Your task to perform on an android device: turn off location history Image 0: 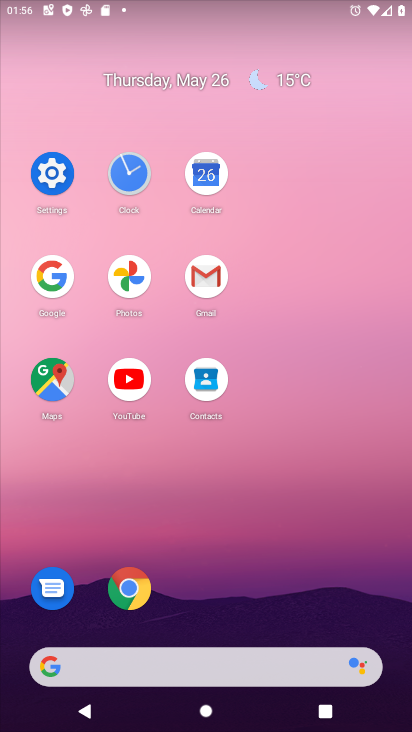
Step 0: click (82, 173)
Your task to perform on an android device: turn off location history Image 1: 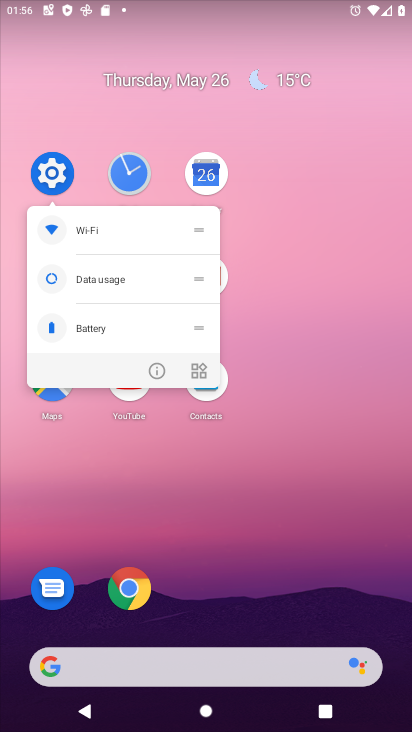
Step 1: click (67, 182)
Your task to perform on an android device: turn off location history Image 2: 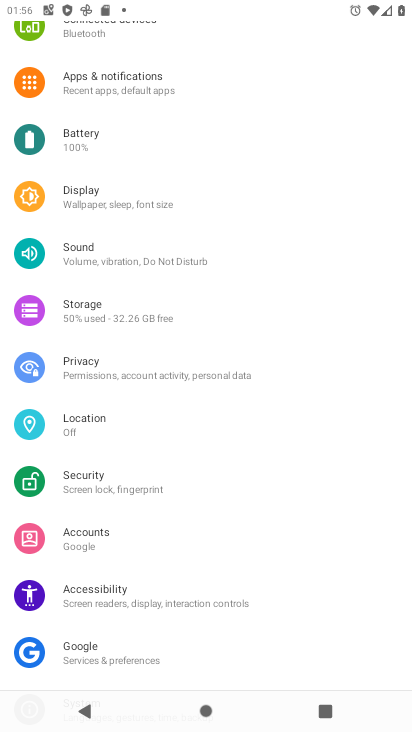
Step 2: click (165, 417)
Your task to perform on an android device: turn off location history Image 3: 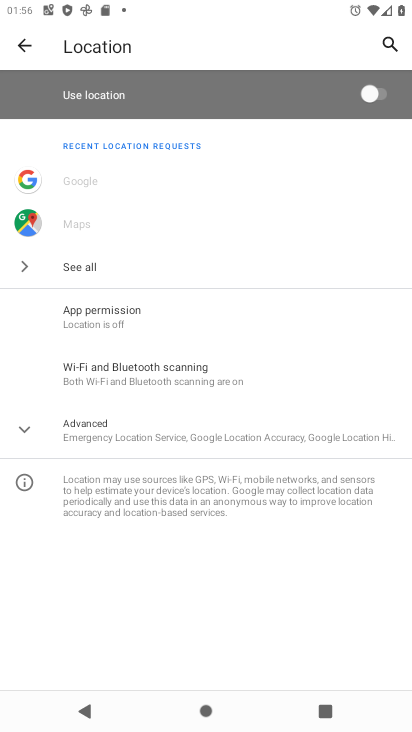
Step 3: click (129, 408)
Your task to perform on an android device: turn off location history Image 4: 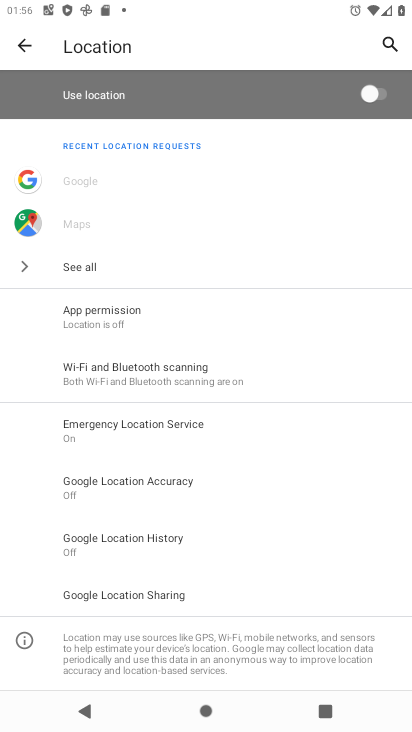
Step 4: click (150, 534)
Your task to perform on an android device: turn off location history Image 5: 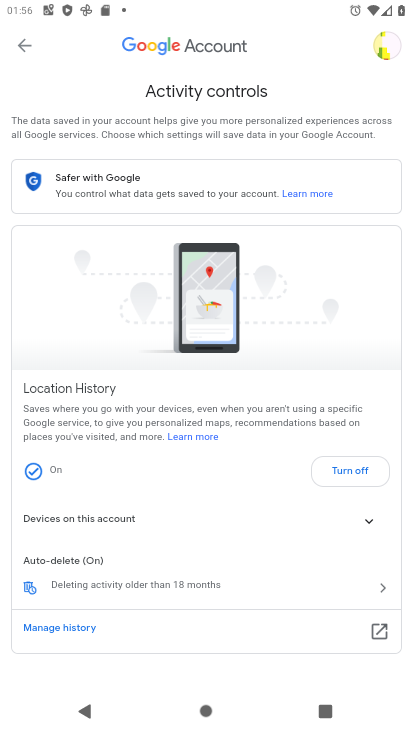
Step 5: click (358, 472)
Your task to perform on an android device: turn off location history Image 6: 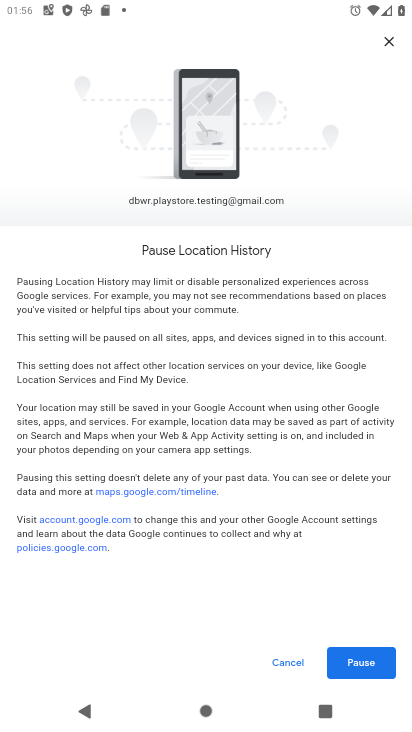
Step 6: drag from (334, 566) to (373, 287)
Your task to perform on an android device: turn off location history Image 7: 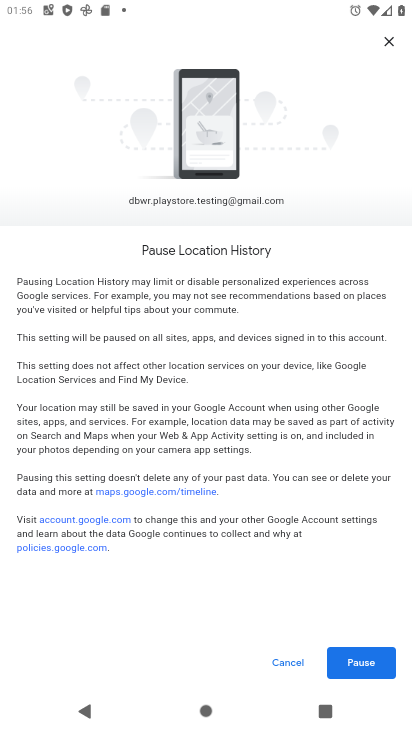
Step 7: click (363, 653)
Your task to perform on an android device: turn off location history Image 8: 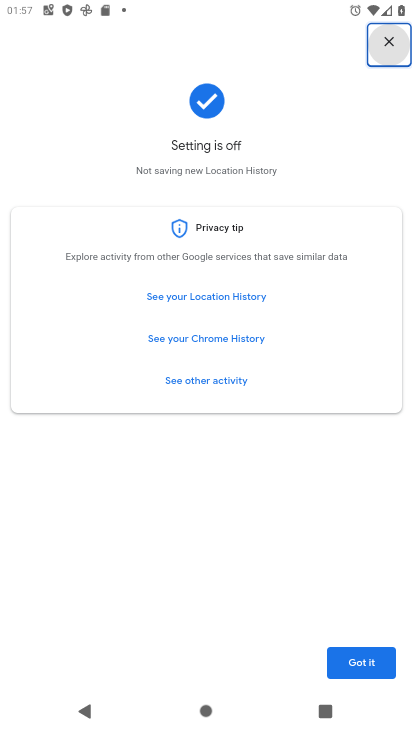
Step 8: click (386, 657)
Your task to perform on an android device: turn off location history Image 9: 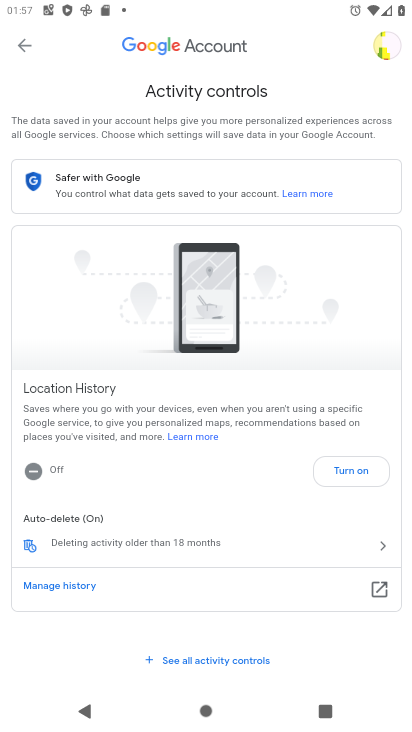
Step 9: task complete